Your task to perform on an android device: Search for custom wallets on etsy. Image 0: 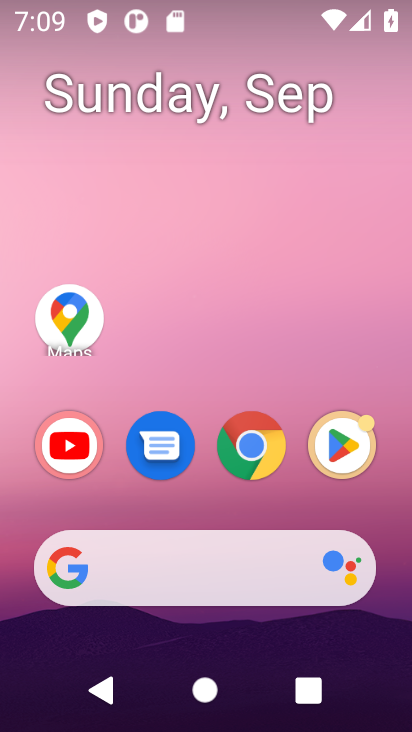
Step 0: drag from (254, 233) to (293, 38)
Your task to perform on an android device: Search for custom wallets on etsy. Image 1: 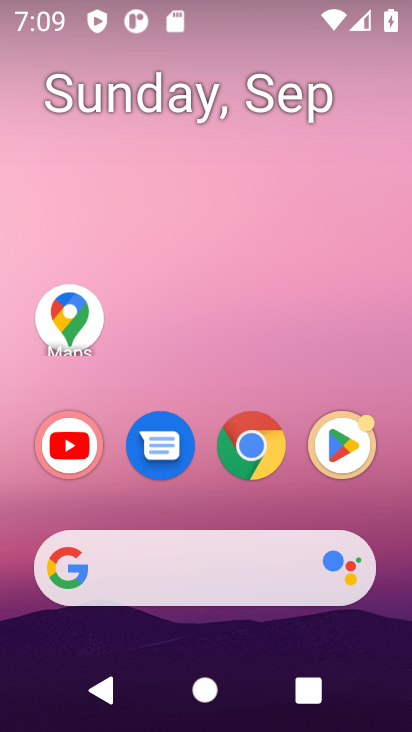
Step 1: click (101, 568)
Your task to perform on an android device: Search for custom wallets on etsy. Image 2: 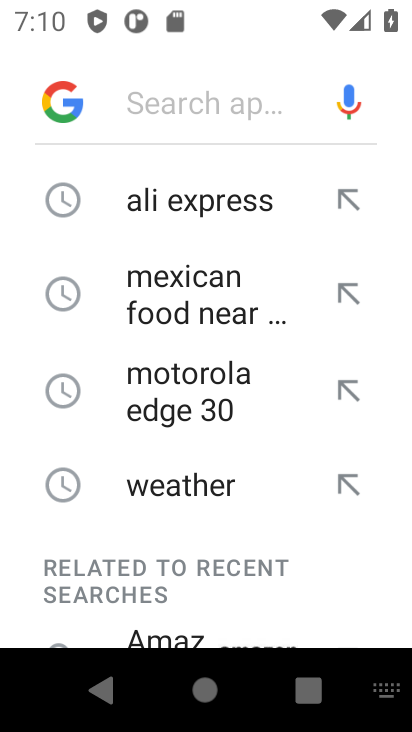
Step 2: type "etsy"
Your task to perform on an android device: Search for custom wallets on etsy. Image 3: 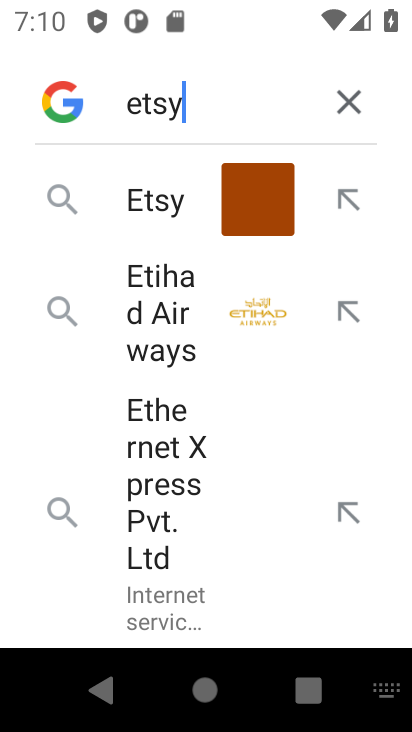
Step 3: press enter
Your task to perform on an android device: Search for custom wallets on etsy. Image 4: 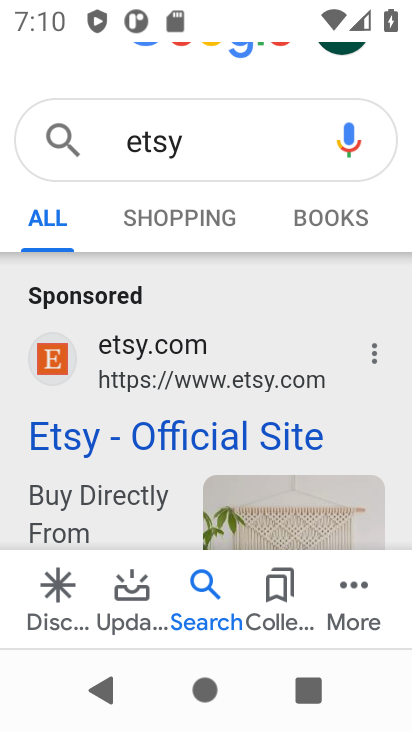
Step 4: click (102, 347)
Your task to perform on an android device: Search for custom wallets on etsy. Image 5: 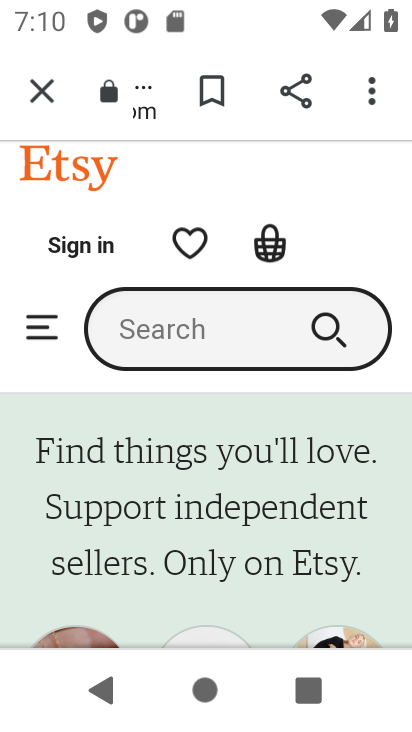
Step 5: click (186, 327)
Your task to perform on an android device: Search for custom wallets on etsy. Image 6: 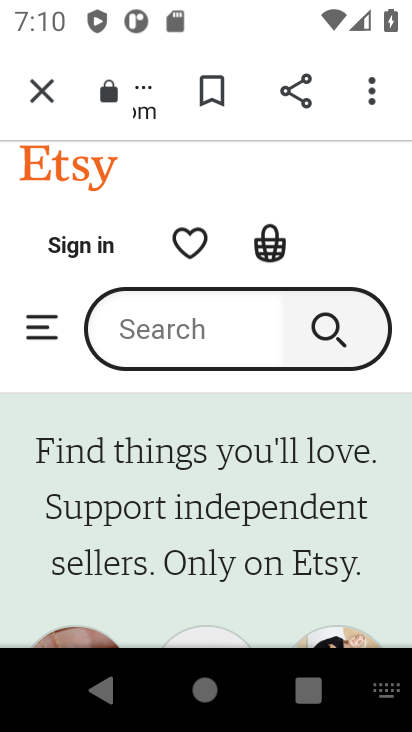
Step 6: type "custom wallets"
Your task to perform on an android device: Search for custom wallets on etsy. Image 7: 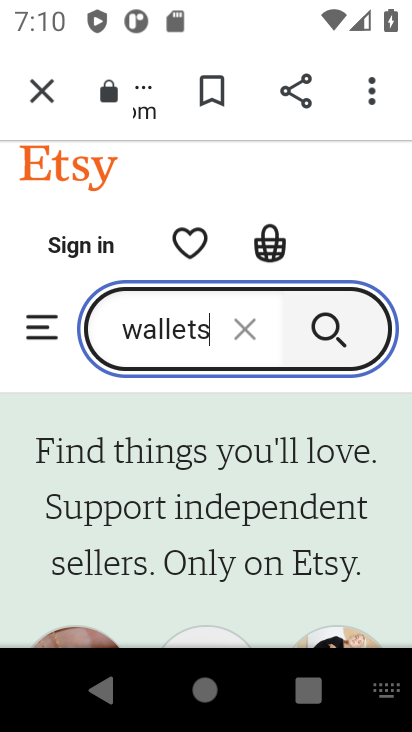
Step 7: press enter
Your task to perform on an android device: Search for custom wallets on etsy. Image 8: 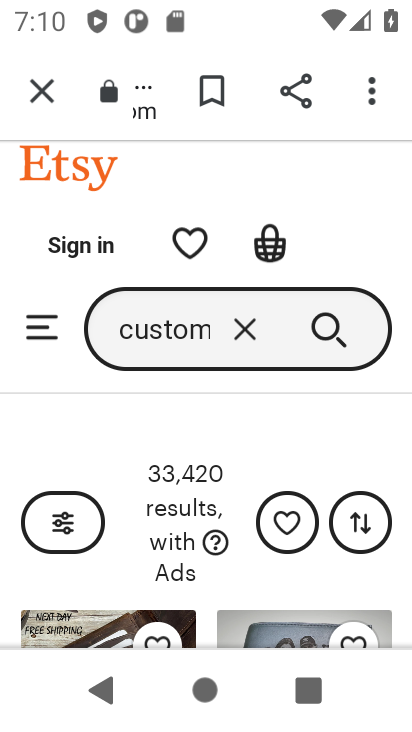
Step 8: task complete